Your task to perform on an android device: View the shopping cart on newegg. Search for panasonic triple a on newegg, select the first entry, add it to the cart, then select checkout. Image 0: 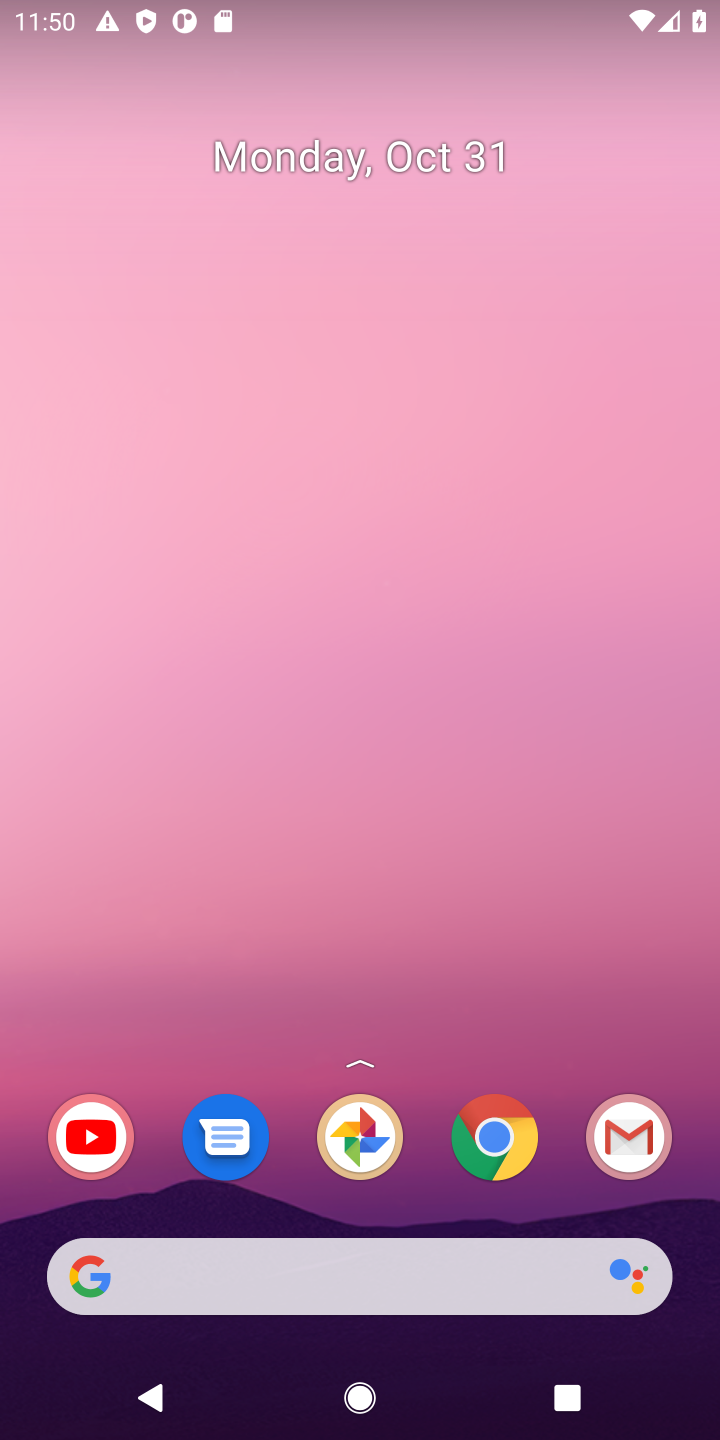
Step 0: click (495, 1137)
Your task to perform on an android device: View the shopping cart on newegg. Search for panasonic triple a on newegg, select the first entry, add it to the cart, then select checkout. Image 1: 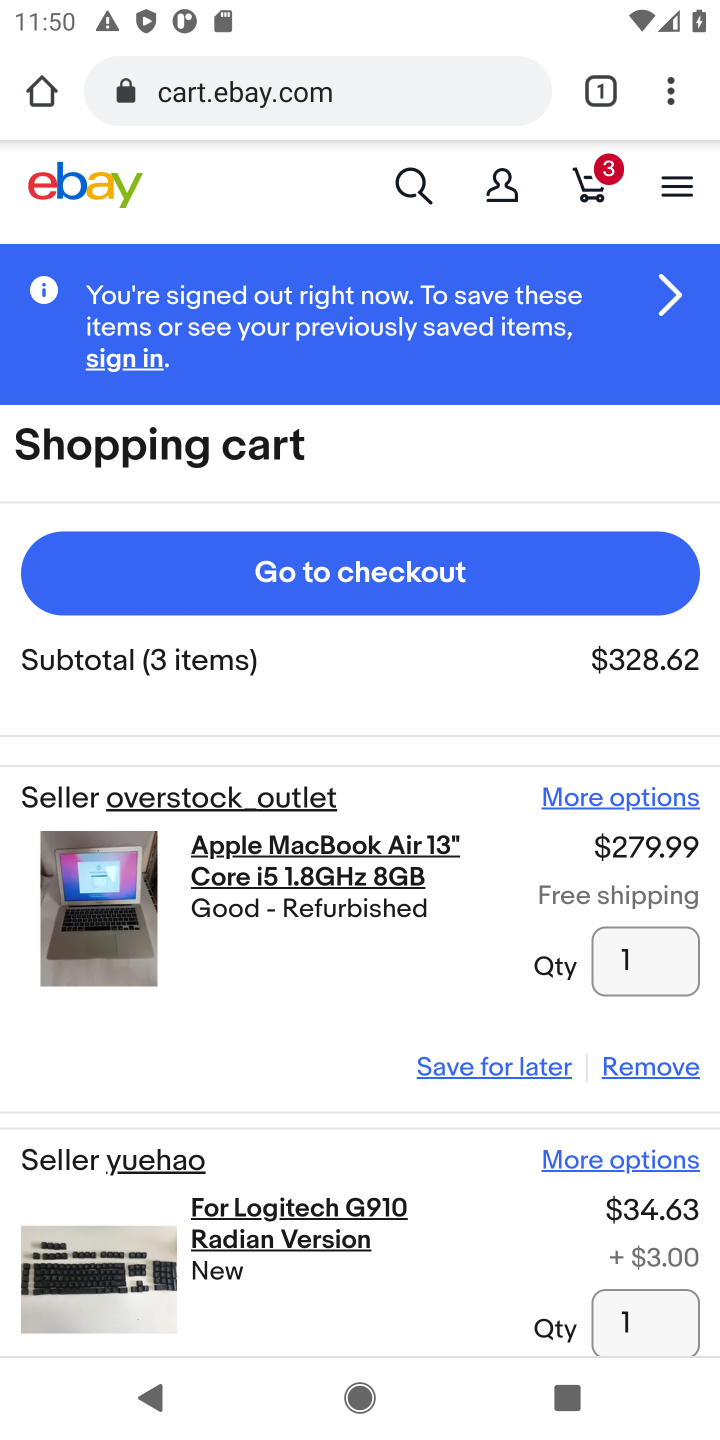
Step 1: click (403, 92)
Your task to perform on an android device: View the shopping cart on newegg. Search for panasonic triple a on newegg, select the first entry, add it to the cart, then select checkout. Image 2: 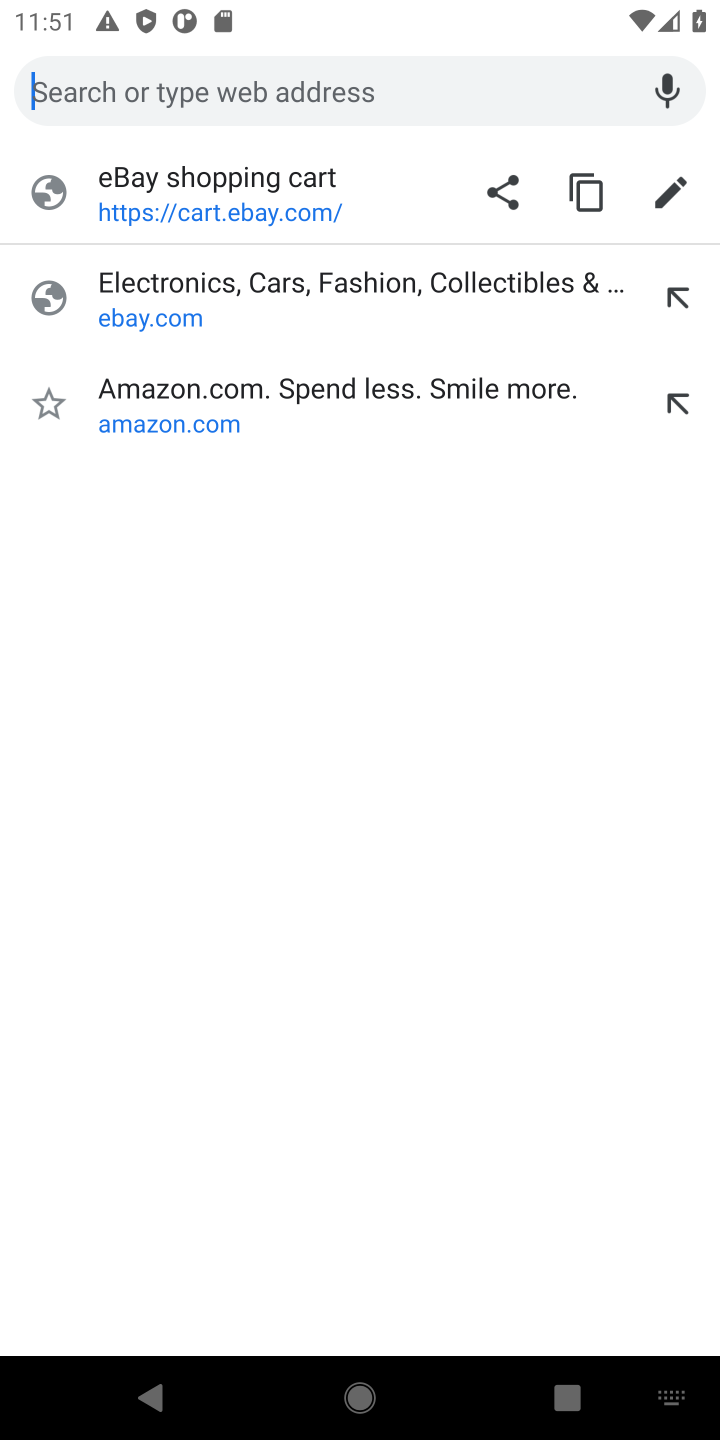
Step 2: type "newegg"
Your task to perform on an android device: View the shopping cart on newegg. Search for panasonic triple a on newegg, select the first entry, add it to the cart, then select checkout. Image 3: 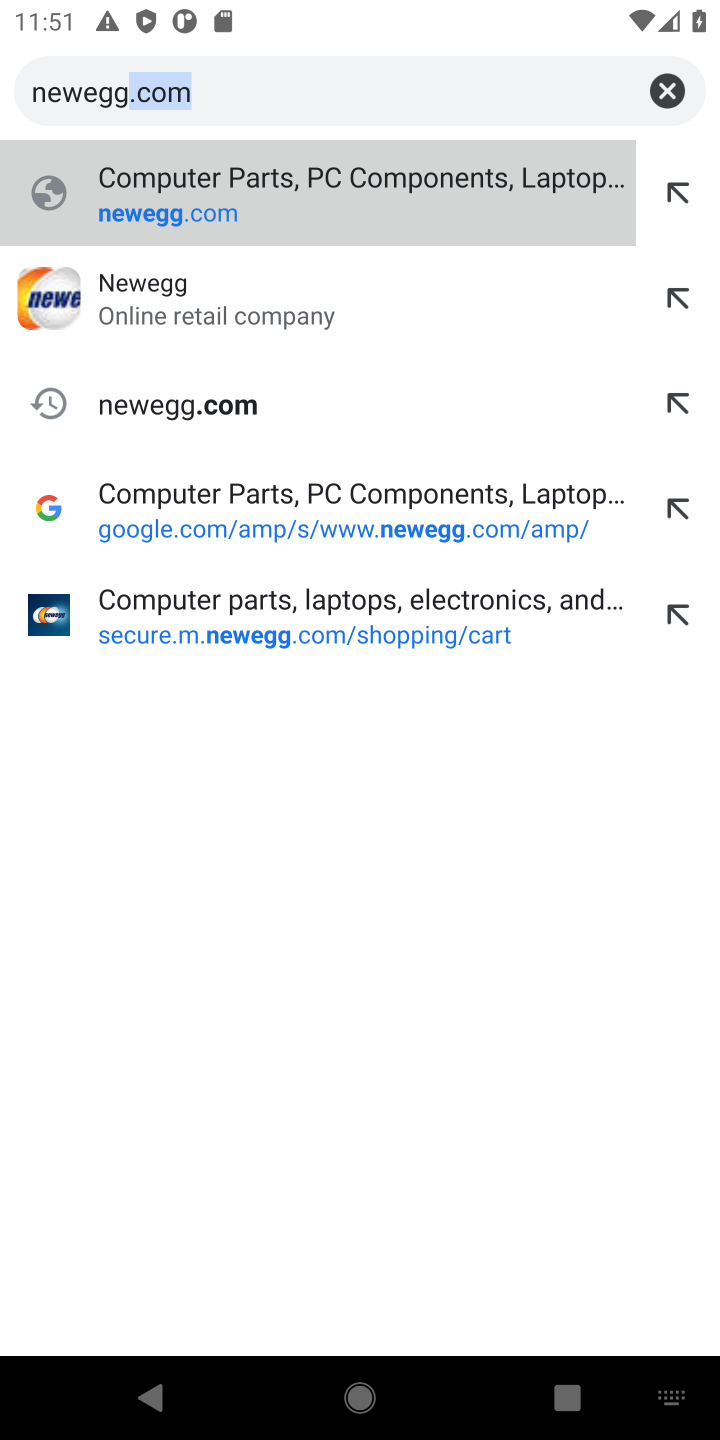
Step 3: click (158, 406)
Your task to perform on an android device: View the shopping cart on newegg. Search for panasonic triple a on newegg, select the first entry, add it to the cart, then select checkout. Image 4: 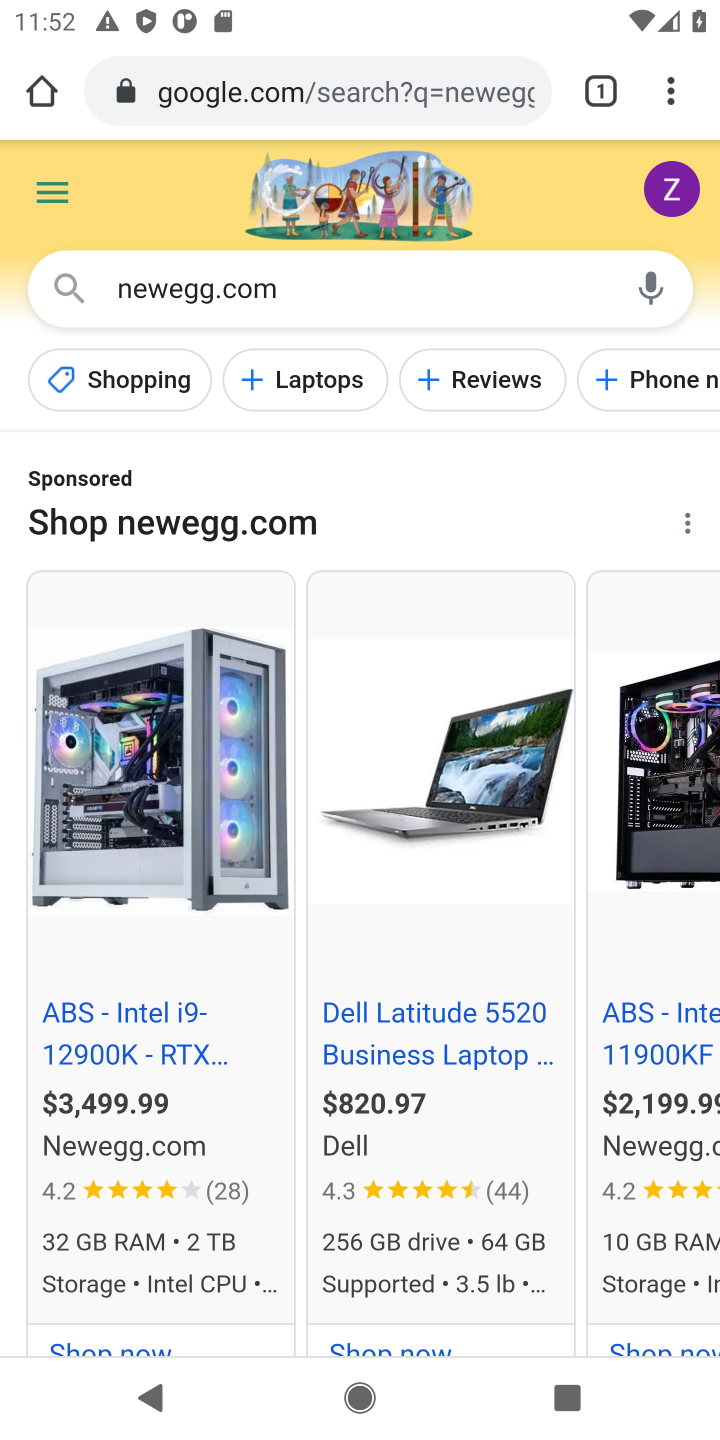
Step 4: drag from (443, 799) to (479, 363)
Your task to perform on an android device: View the shopping cart on newegg. Search for panasonic triple a on newegg, select the first entry, add it to the cart, then select checkout. Image 5: 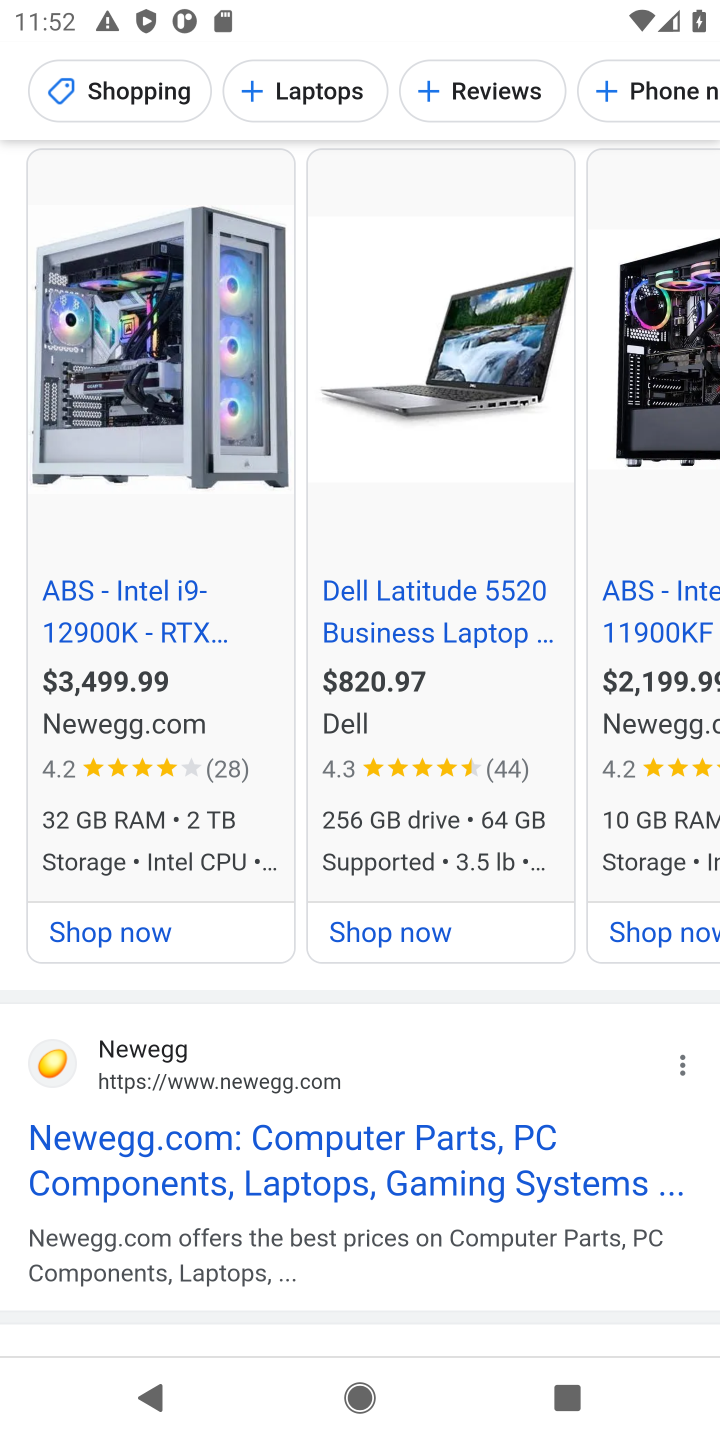
Step 5: click (278, 1085)
Your task to perform on an android device: View the shopping cart on newegg. Search for panasonic triple a on newegg, select the first entry, add it to the cart, then select checkout. Image 6: 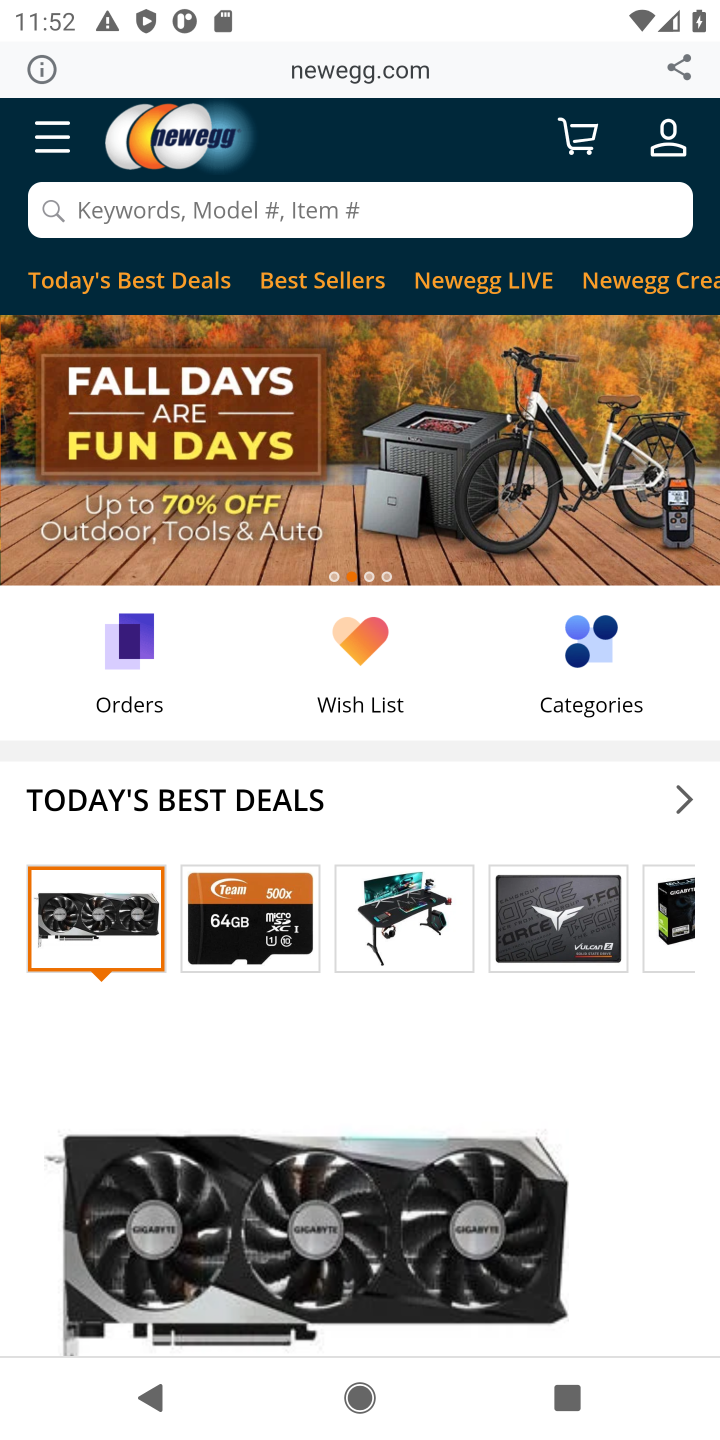
Step 6: drag from (375, 850) to (484, 477)
Your task to perform on an android device: View the shopping cart on newegg. Search for panasonic triple a on newegg, select the first entry, add it to the cart, then select checkout. Image 7: 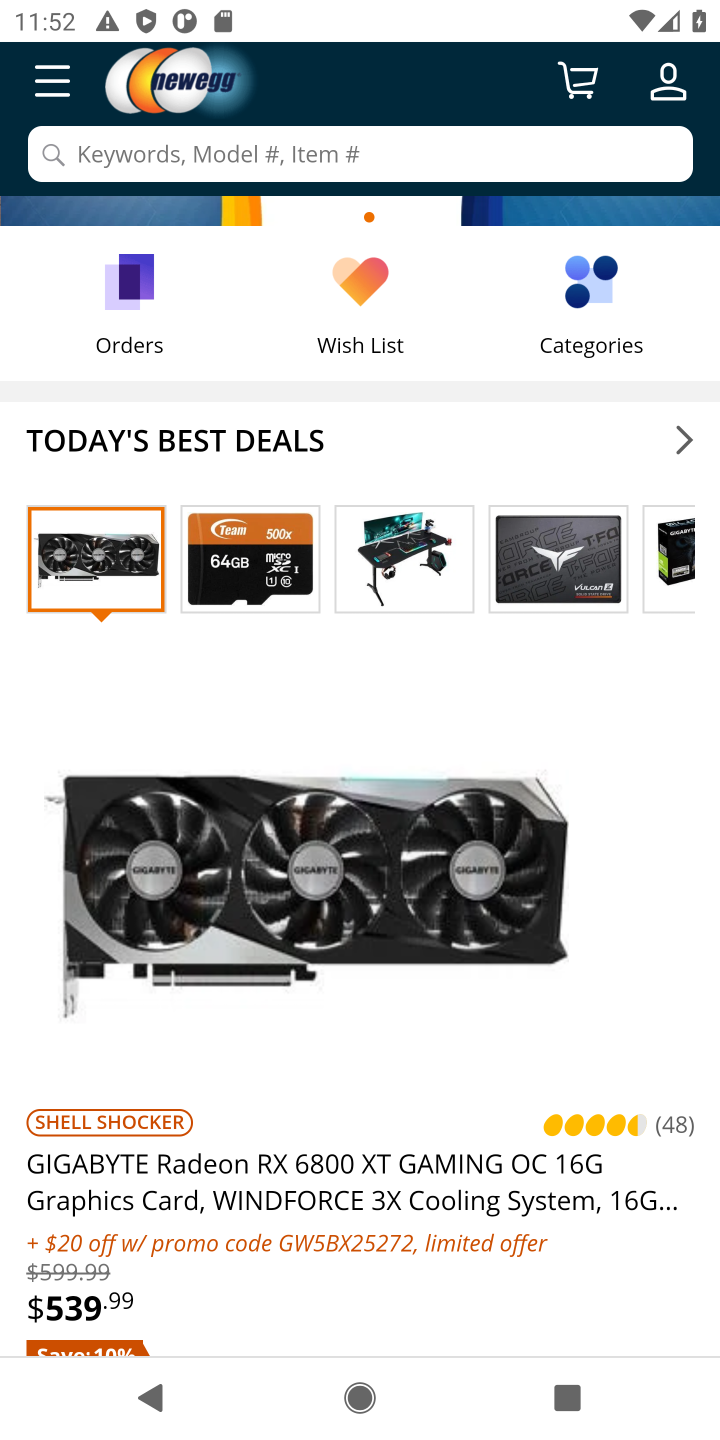
Step 7: click (482, 157)
Your task to perform on an android device: View the shopping cart on newegg. Search for panasonic triple a on newegg, select the first entry, add it to the cart, then select checkout. Image 8: 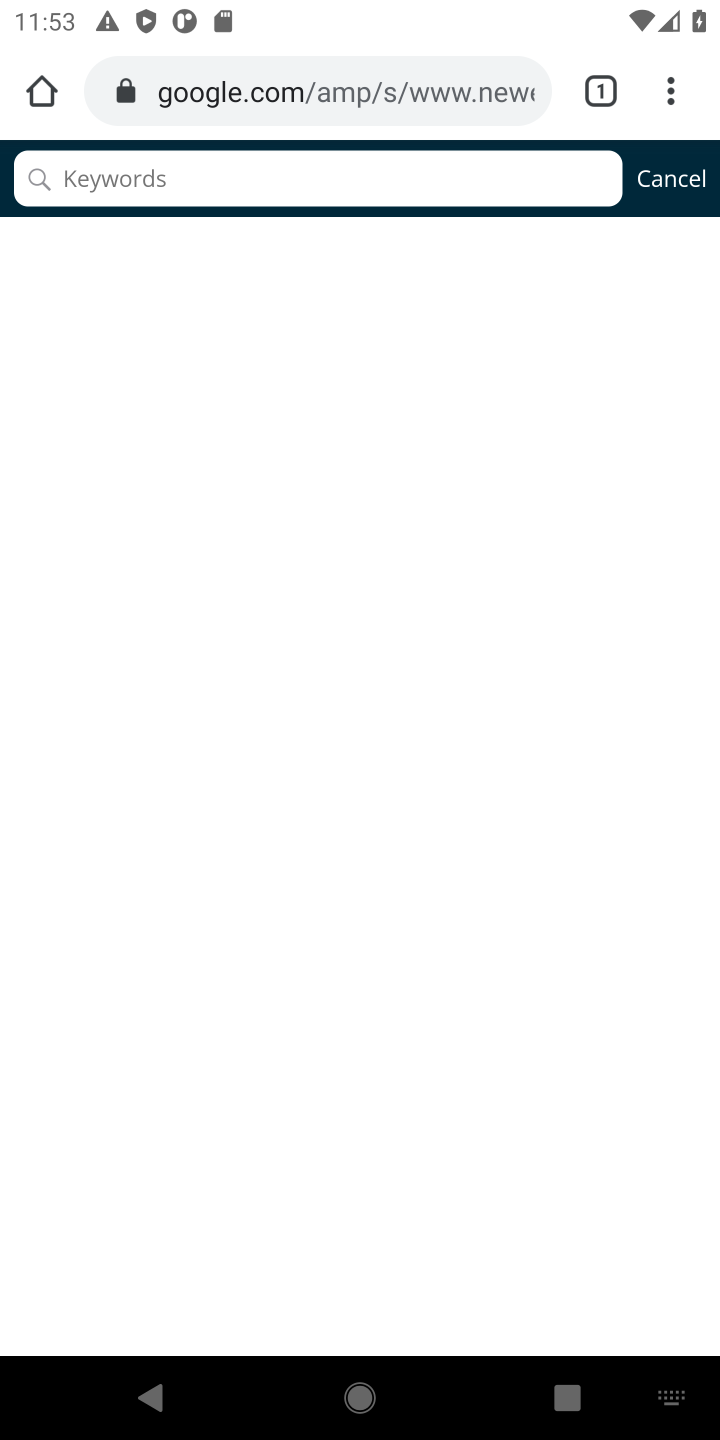
Step 8: type "panasonic triple a"
Your task to perform on an android device: View the shopping cart on newegg. Search for panasonic triple a on newegg, select the first entry, add it to the cart, then select checkout. Image 9: 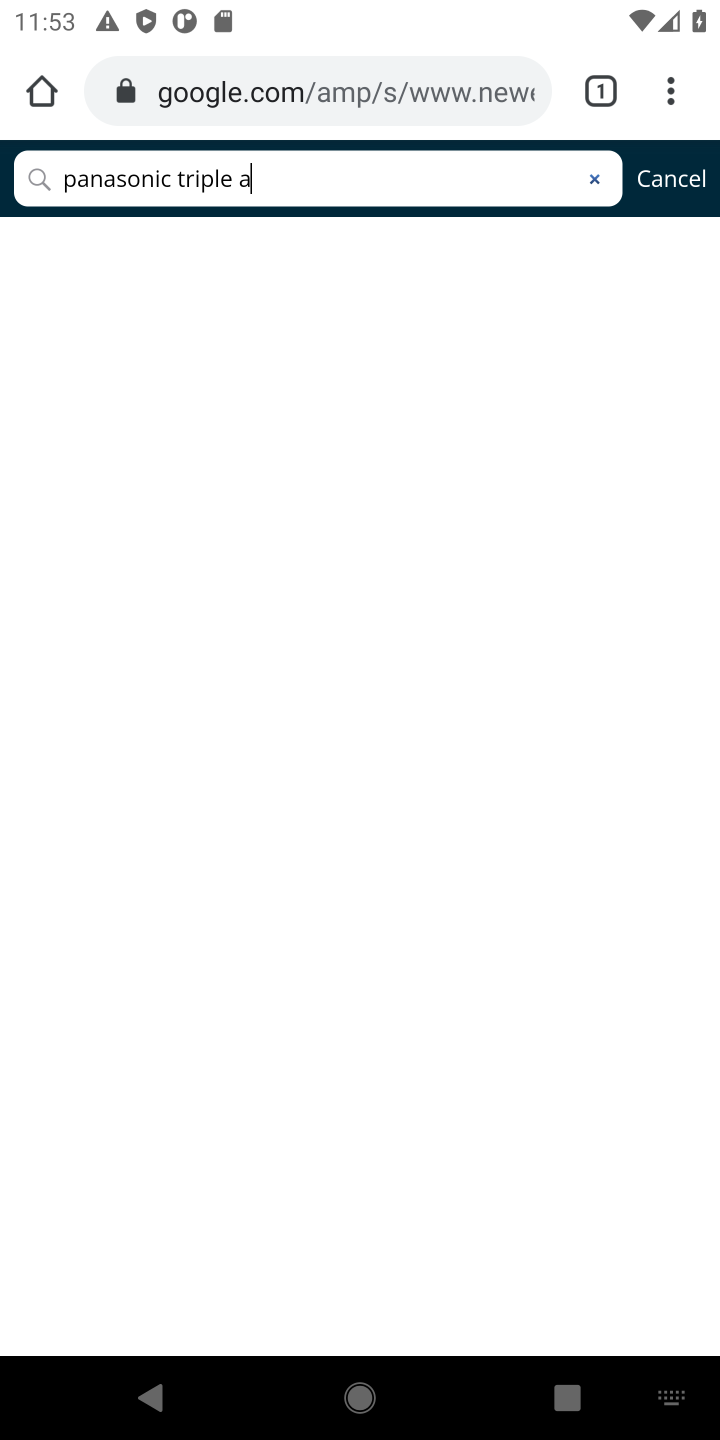
Step 9: task complete